Your task to perform on an android device: toggle show notifications on the lock screen Image 0: 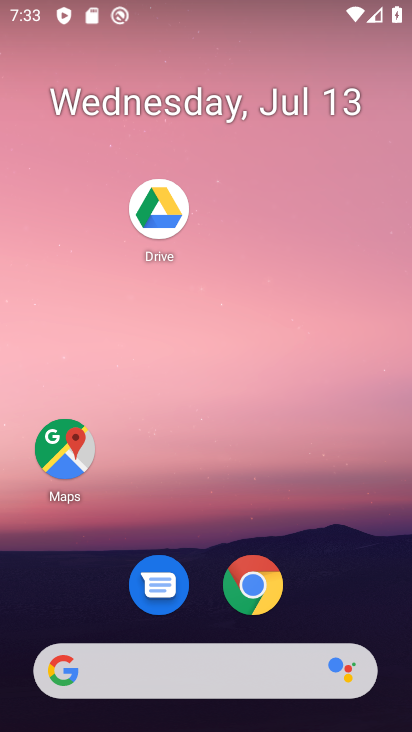
Step 0: drag from (218, 666) to (340, 69)
Your task to perform on an android device: toggle show notifications on the lock screen Image 1: 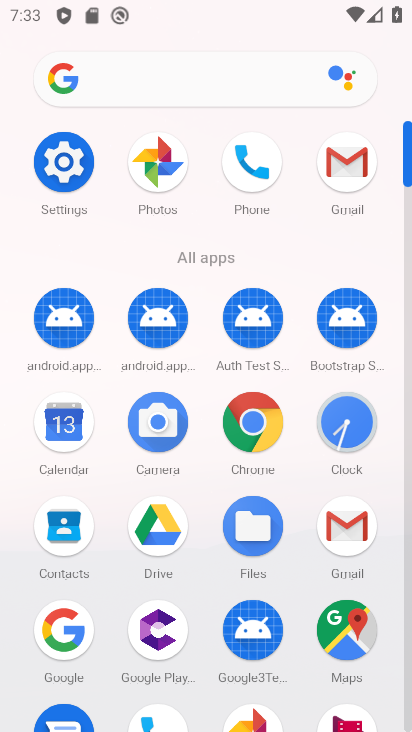
Step 1: click (61, 170)
Your task to perform on an android device: toggle show notifications on the lock screen Image 2: 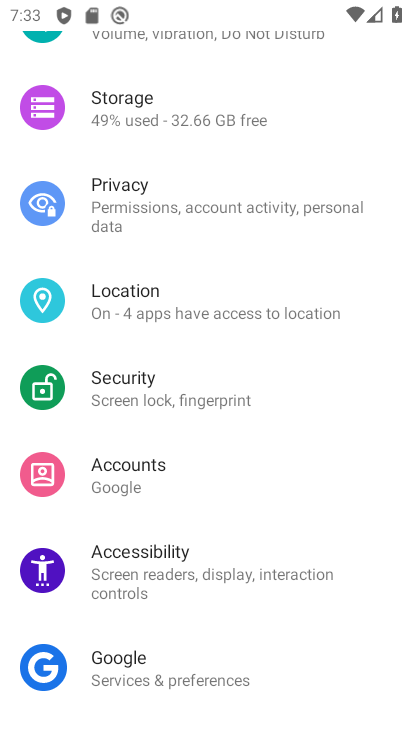
Step 2: drag from (242, 76) to (221, 398)
Your task to perform on an android device: toggle show notifications on the lock screen Image 3: 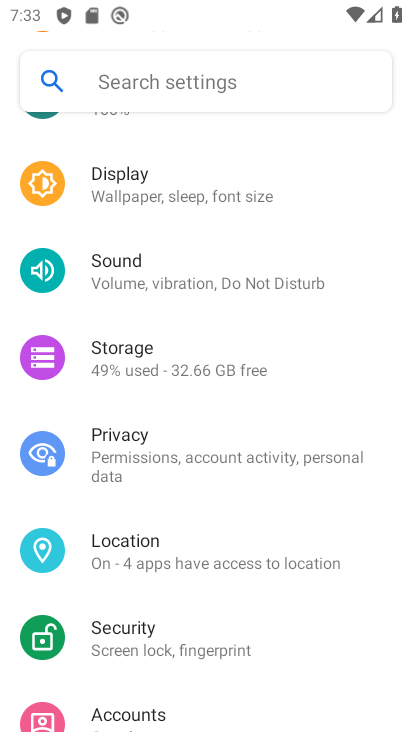
Step 3: drag from (296, 142) to (285, 475)
Your task to perform on an android device: toggle show notifications on the lock screen Image 4: 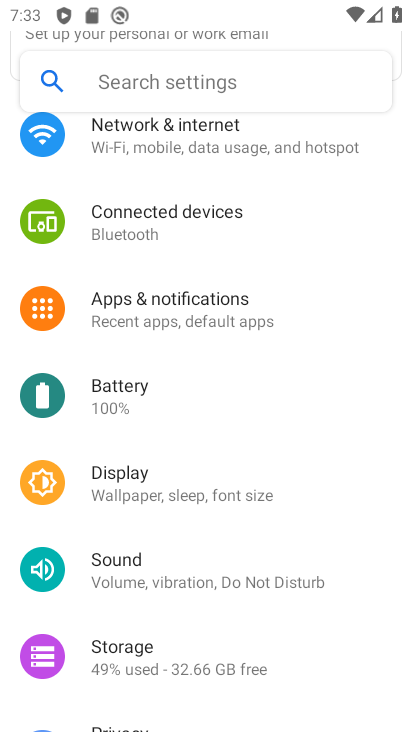
Step 4: click (214, 299)
Your task to perform on an android device: toggle show notifications on the lock screen Image 5: 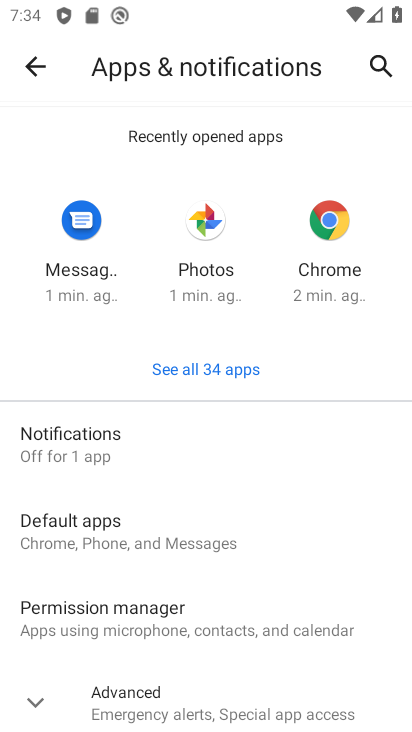
Step 5: click (112, 445)
Your task to perform on an android device: toggle show notifications on the lock screen Image 6: 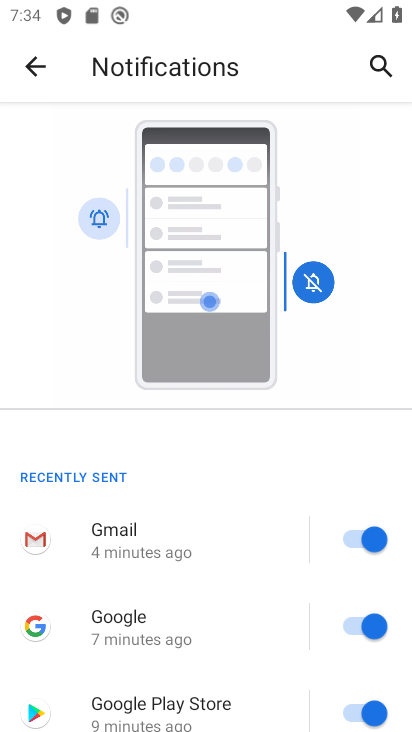
Step 6: drag from (164, 614) to (342, 141)
Your task to perform on an android device: toggle show notifications on the lock screen Image 7: 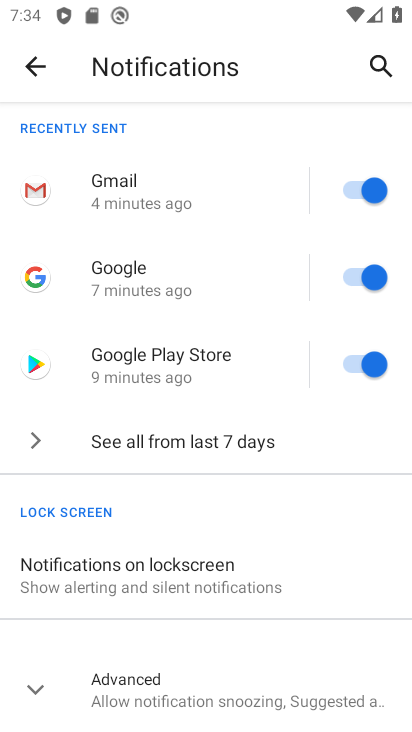
Step 7: click (224, 575)
Your task to perform on an android device: toggle show notifications on the lock screen Image 8: 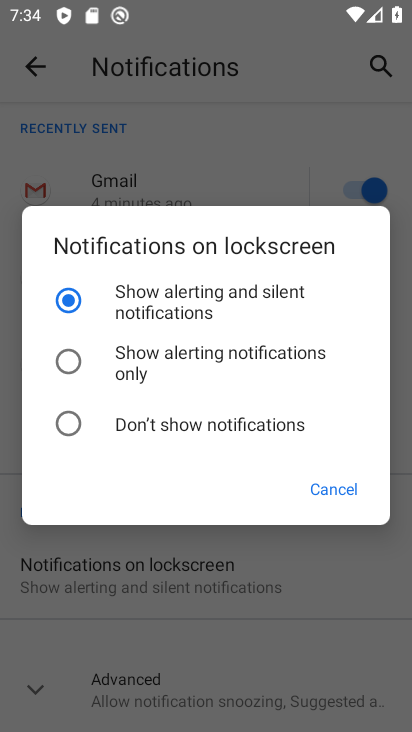
Step 8: click (66, 420)
Your task to perform on an android device: toggle show notifications on the lock screen Image 9: 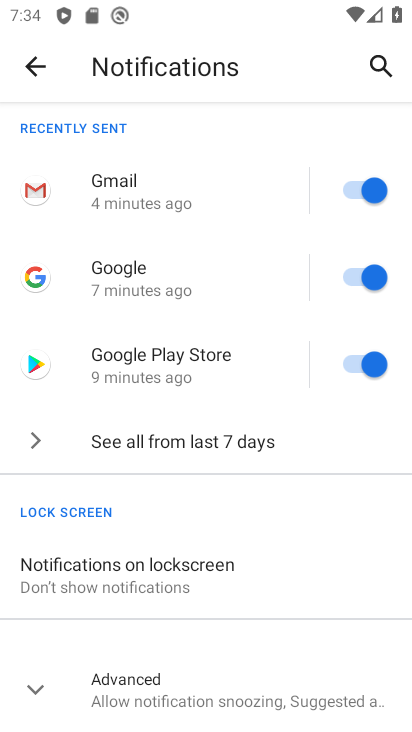
Step 9: task complete